Your task to perform on an android device: Go to Android settings Image 0: 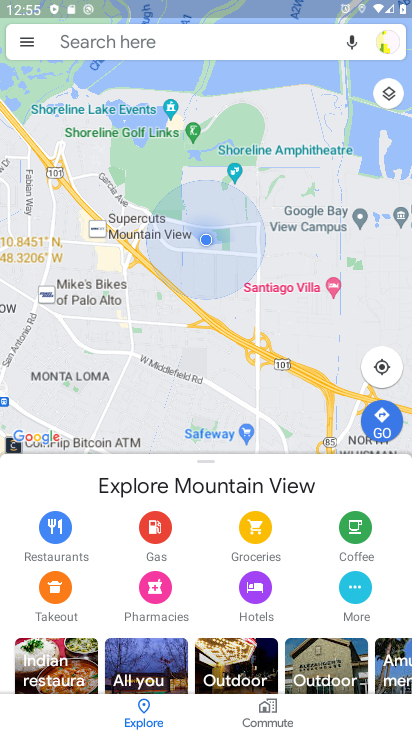
Step 0: press home button
Your task to perform on an android device: Go to Android settings Image 1: 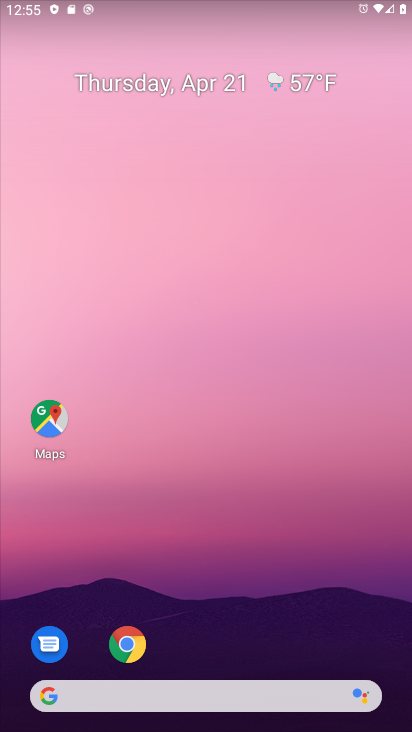
Step 1: drag from (213, 666) to (128, 46)
Your task to perform on an android device: Go to Android settings Image 2: 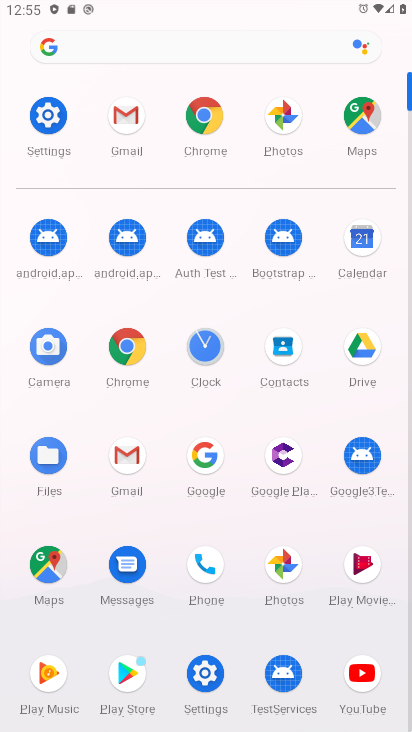
Step 2: click (213, 667)
Your task to perform on an android device: Go to Android settings Image 3: 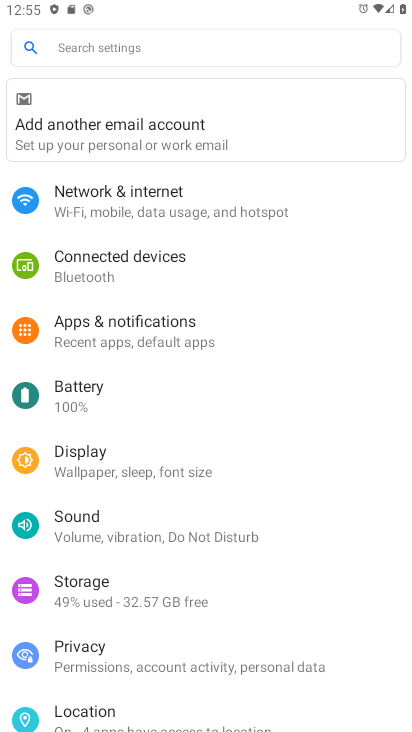
Step 3: task complete